Your task to perform on an android device: add a label to a message in the gmail app Image 0: 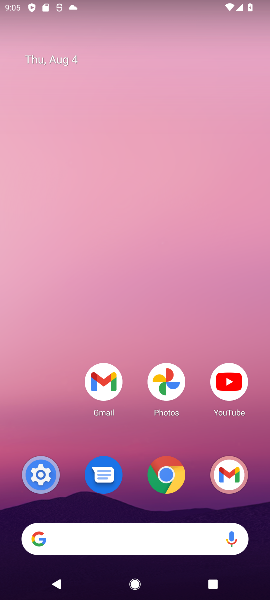
Step 0: drag from (115, 509) to (190, 123)
Your task to perform on an android device: add a label to a message in the gmail app Image 1: 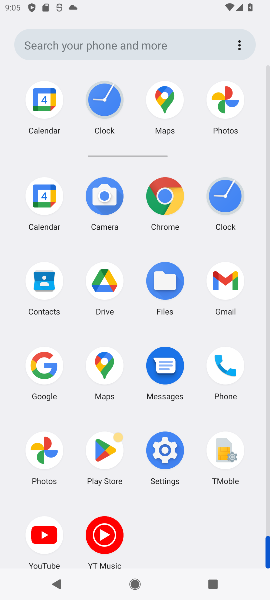
Step 1: click (223, 288)
Your task to perform on an android device: add a label to a message in the gmail app Image 2: 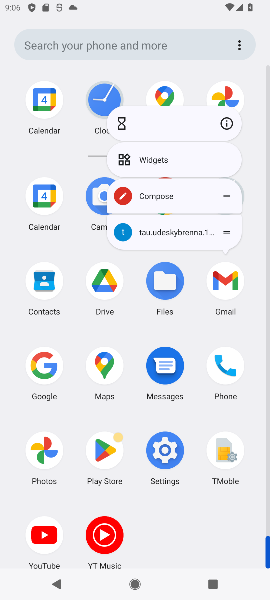
Step 2: click (223, 117)
Your task to perform on an android device: add a label to a message in the gmail app Image 3: 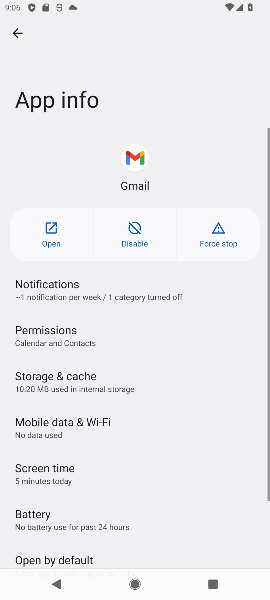
Step 3: click (39, 254)
Your task to perform on an android device: add a label to a message in the gmail app Image 4: 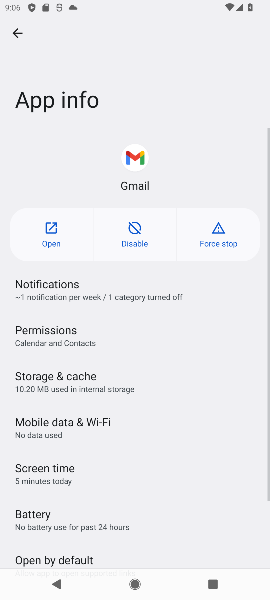
Step 4: click (48, 254)
Your task to perform on an android device: add a label to a message in the gmail app Image 5: 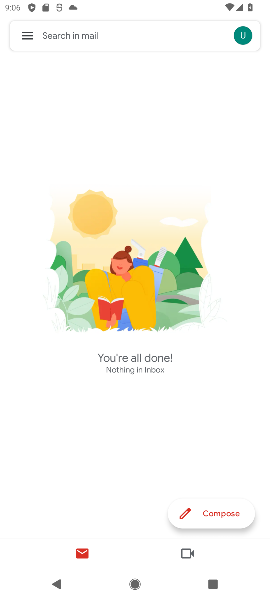
Step 5: click (21, 42)
Your task to perform on an android device: add a label to a message in the gmail app Image 6: 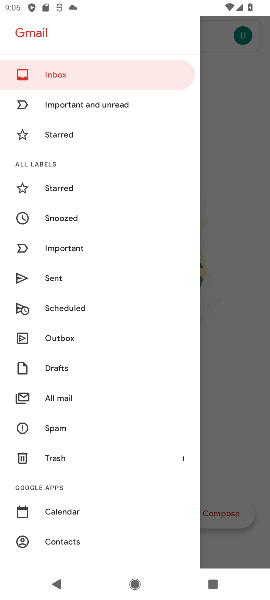
Step 6: drag from (104, 485) to (118, 198)
Your task to perform on an android device: add a label to a message in the gmail app Image 7: 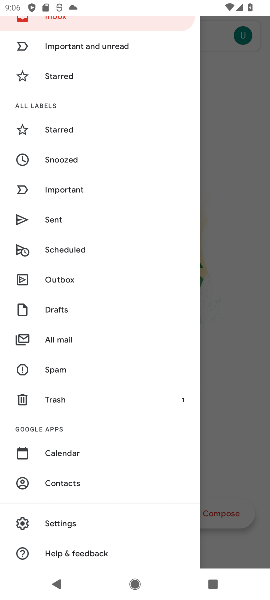
Step 7: drag from (105, 137) to (254, 542)
Your task to perform on an android device: add a label to a message in the gmail app Image 8: 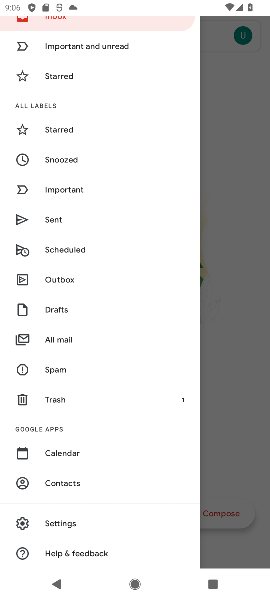
Step 8: drag from (86, 98) to (112, 451)
Your task to perform on an android device: add a label to a message in the gmail app Image 9: 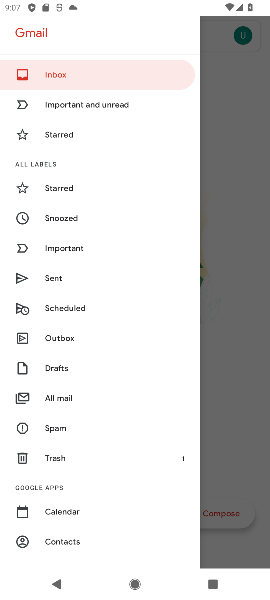
Step 9: click (70, 73)
Your task to perform on an android device: add a label to a message in the gmail app Image 10: 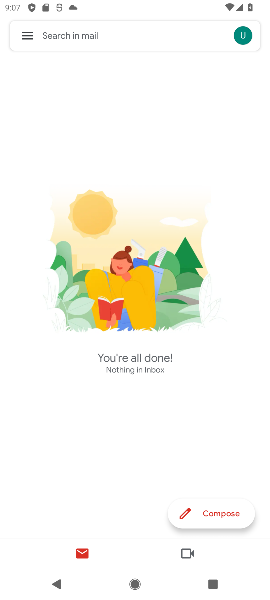
Step 10: click (232, 133)
Your task to perform on an android device: add a label to a message in the gmail app Image 11: 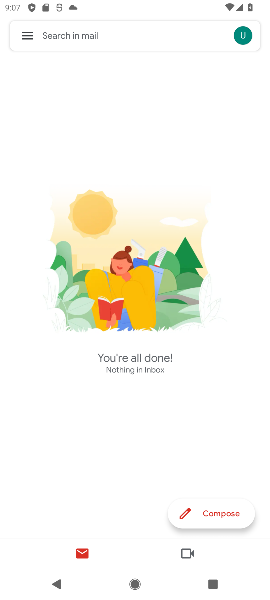
Step 11: task complete